Your task to perform on an android device: show emergency info Image 0: 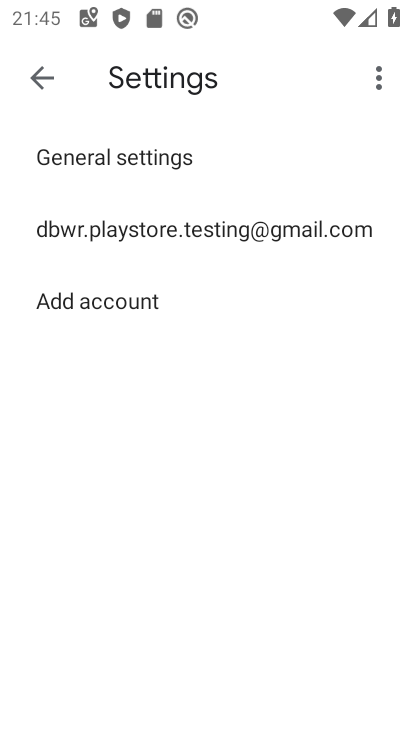
Step 0: press home button
Your task to perform on an android device: show emergency info Image 1: 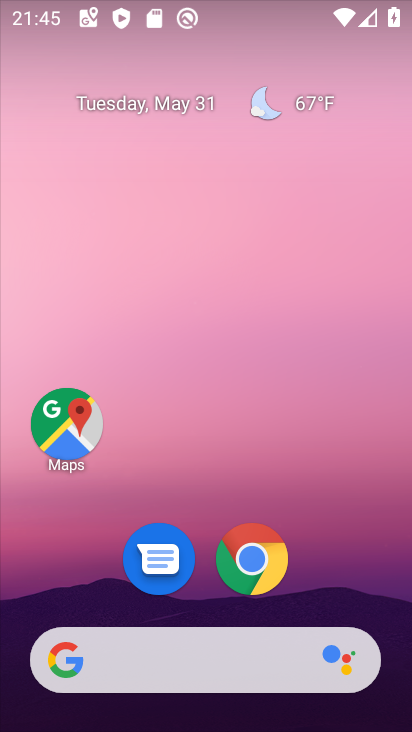
Step 1: drag from (308, 565) to (360, 59)
Your task to perform on an android device: show emergency info Image 2: 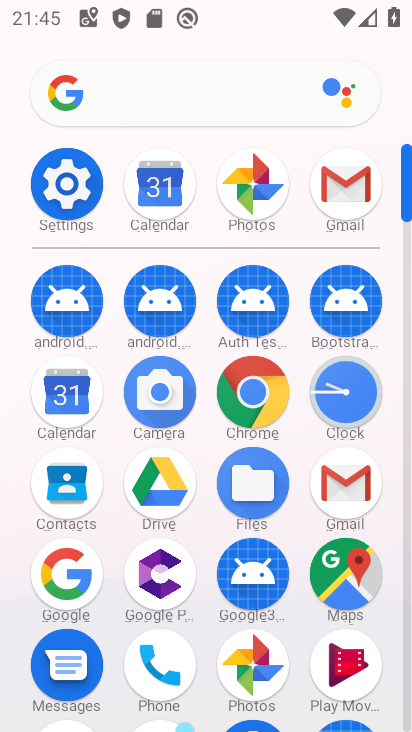
Step 2: click (70, 187)
Your task to perform on an android device: show emergency info Image 3: 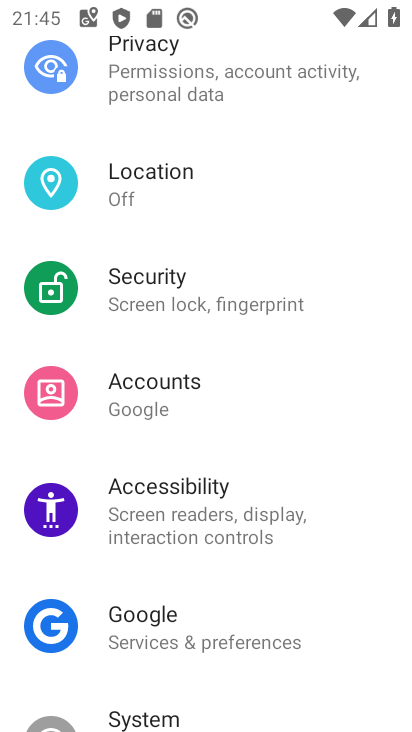
Step 3: drag from (195, 594) to (259, 14)
Your task to perform on an android device: show emergency info Image 4: 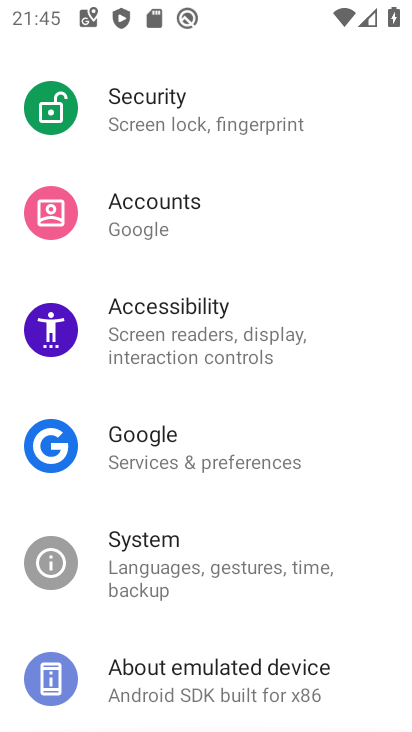
Step 4: click (188, 684)
Your task to perform on an android device: show emergency info Image 5: 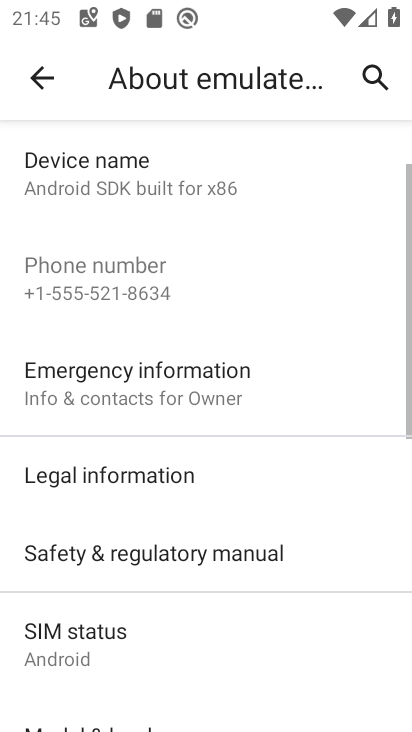
Step 5: click (154, 388)
Your task to perform on an android device: show emergency info Image 6: 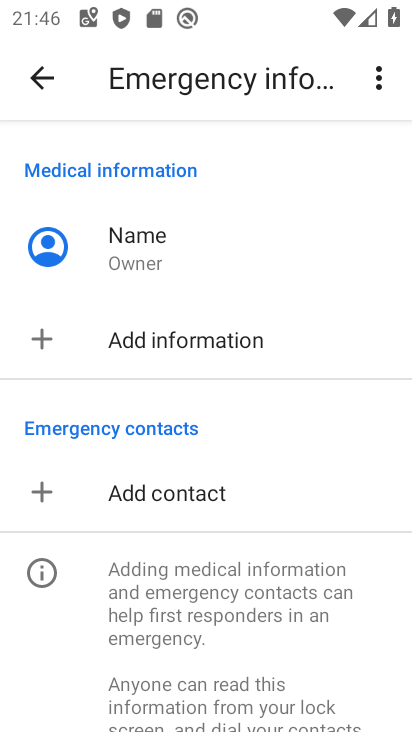
Step 6: task complete